Your task to perform on an android device: change the clock display to digital Image 0: 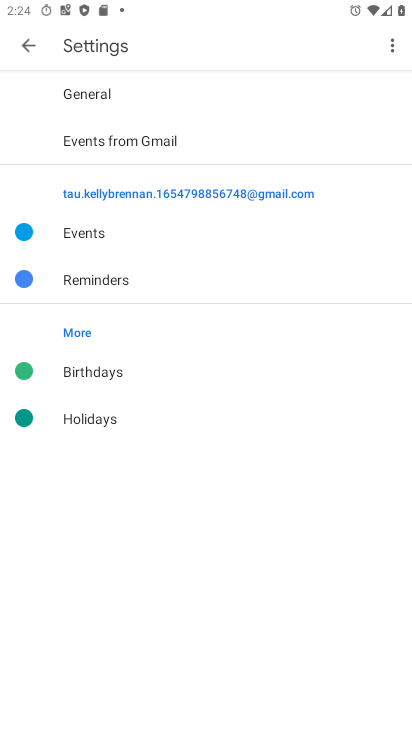
Step 0: press home button
Your task to perform on an android device: change the clock display to digital Image 1: 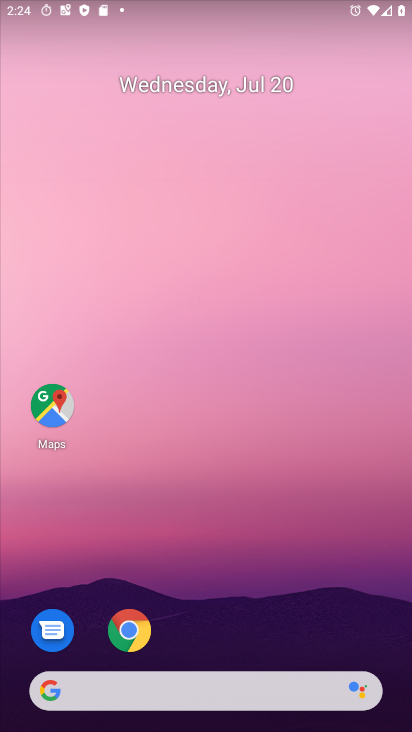
Step 1: drag from (214, 697) to (353, 52)
Your task to perform on an android device: change the clock display to digital Image 2: 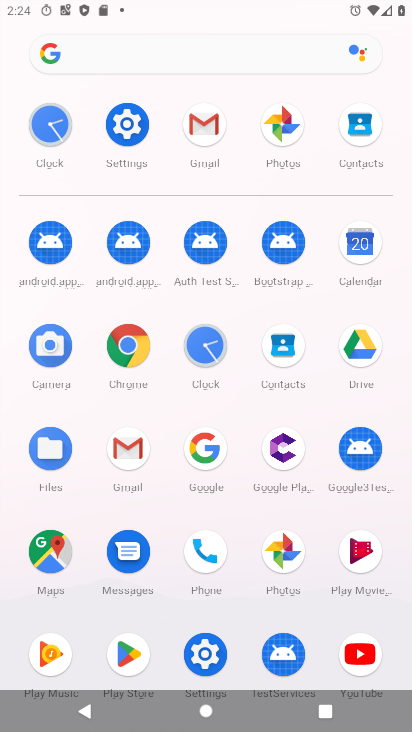
Step 2: click (208, 339)
Your task to perform on an android device: change the clock display to digital Image 3: 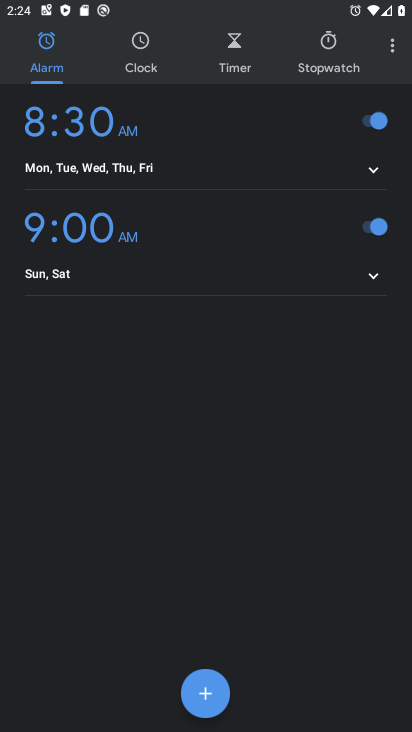
Step 3: click (391, 46)
Your task to perform on an android device: change the clock display to digital Image 4: 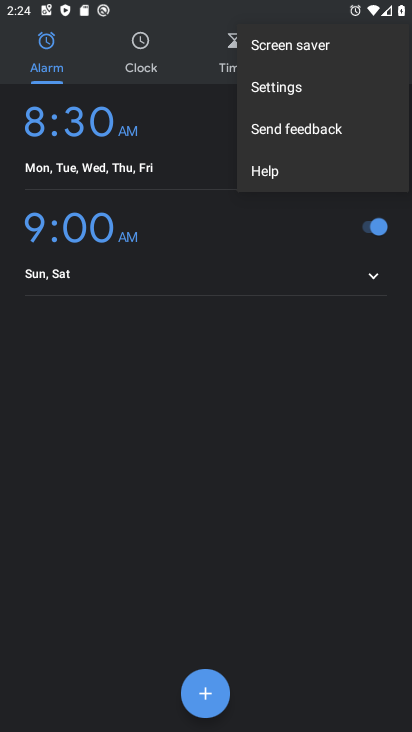
Step 4: click (293, 90)
Your task to perform on an android device: change the clock display to digital Image 5: 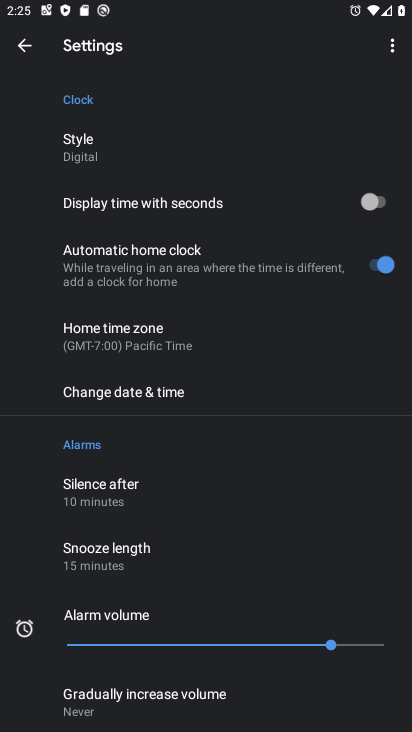
Step 5: task complete